Your task to perform on an android device: turn off location history Image 0: 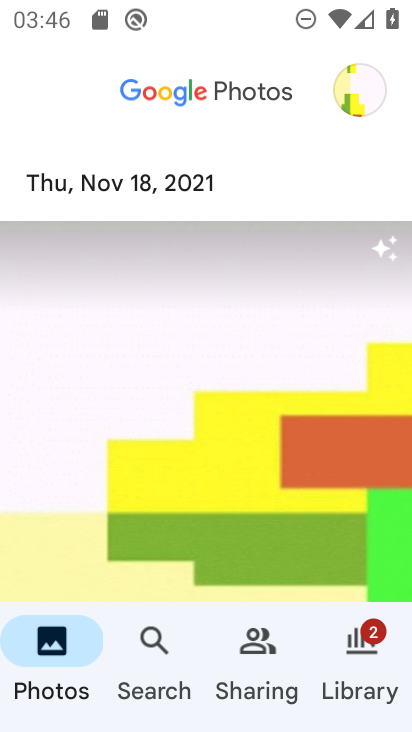
Step 0: press home button
Your task to perform on an android device: turn off location history Image 1: 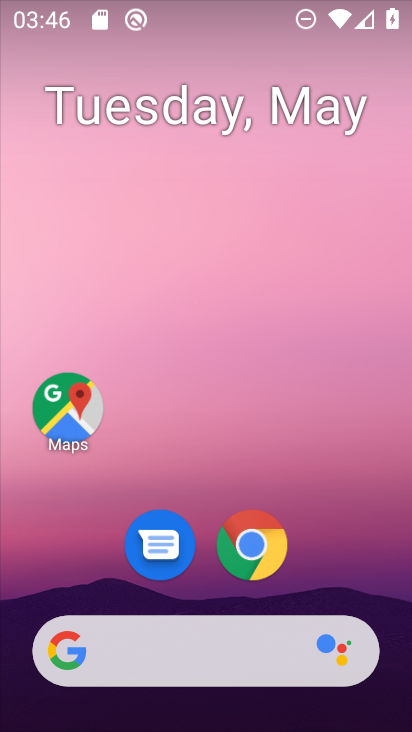
Step 1: click (70, 406)
Your task to perform on an android device: turn off location history Image 2: 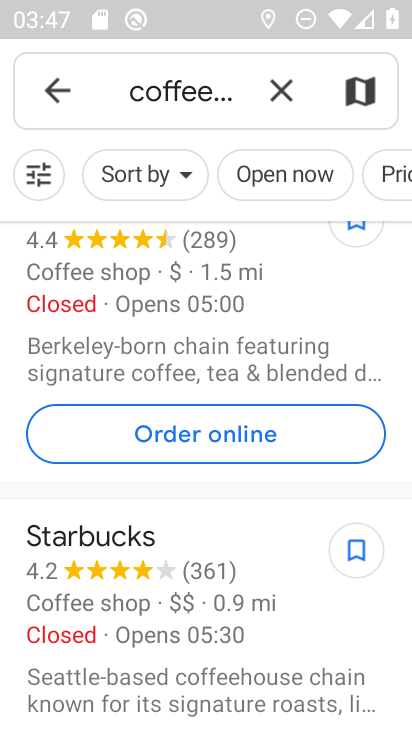
Step 2: click (281, 90)
Your task to perform on an android device: turn off location history Image 3: 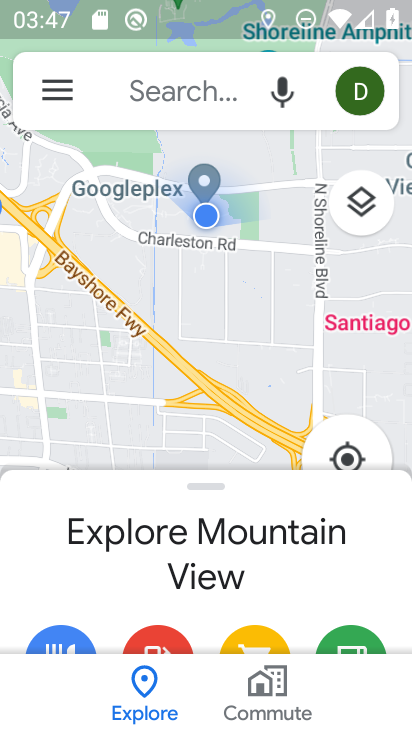
Step 3: click (55, 93)
Your task to perform on an android device: turn off location history Image 4: 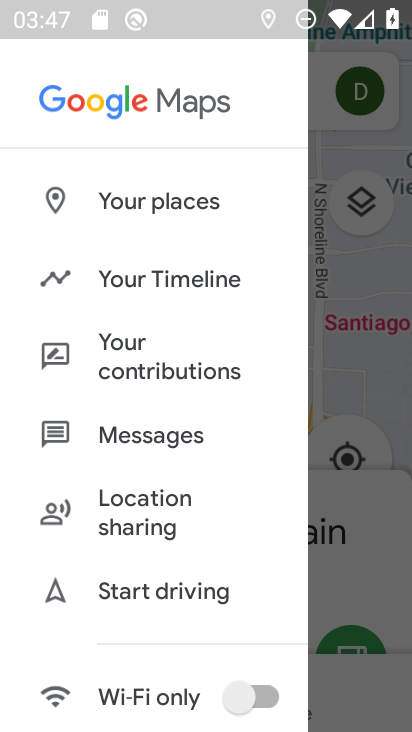
Step 4: drag from (290, 597) to (210, 183)
Your task to perform on an android device: turn off location history Image 5: 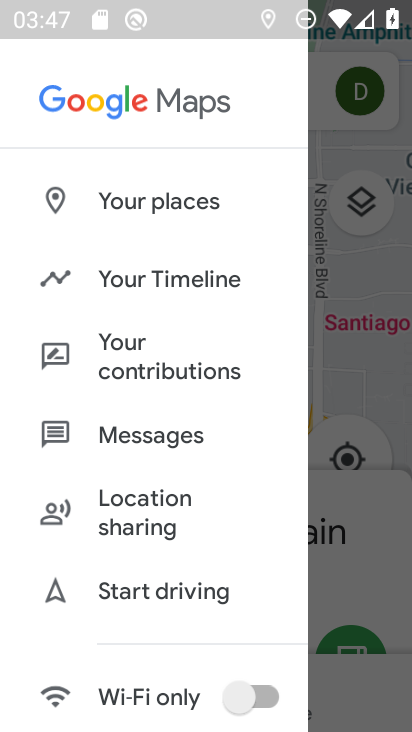
Step 5: drag from (257, 599) to (183, 148)
Your task to perform on an android device: turn off location history Image 6: 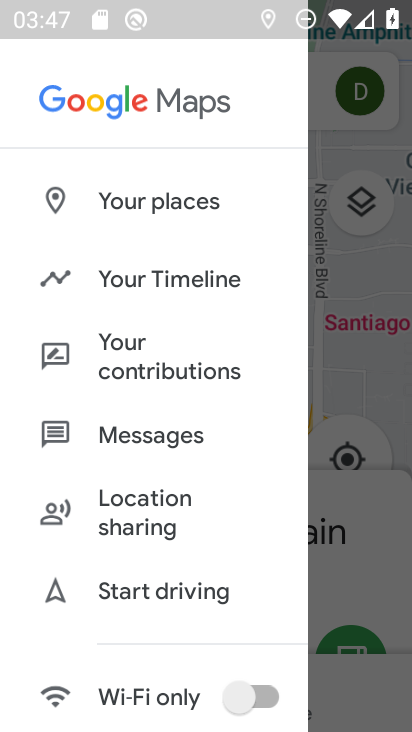
Step 6: drag from (268, 620) to (181, 225)
Your task to perform on an android device: turn off location history Image 7: 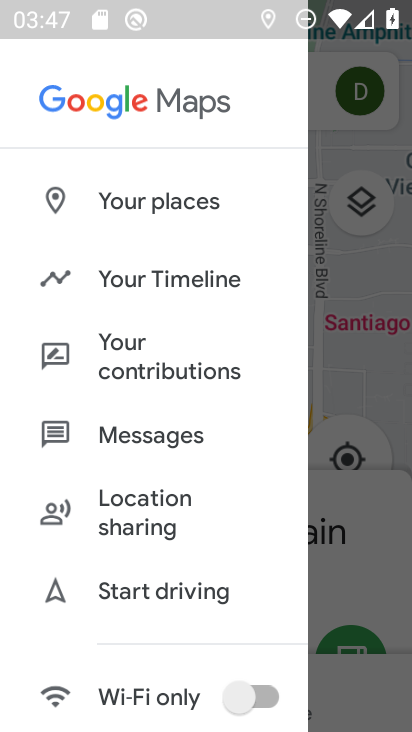
Step 7: drag from (241, 605) to (194, 132)
Your task to perform on an android device: turn off location history Image 8: 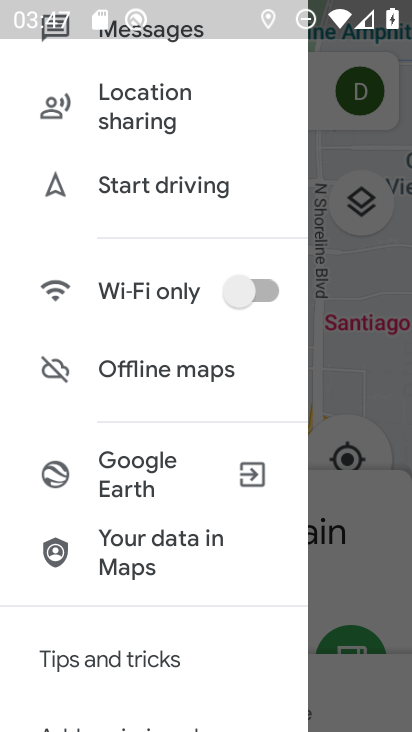
Step 8: drag from (201, 627) to (170, 162)
Your task to perform on an android device: turn off location history Image 9: 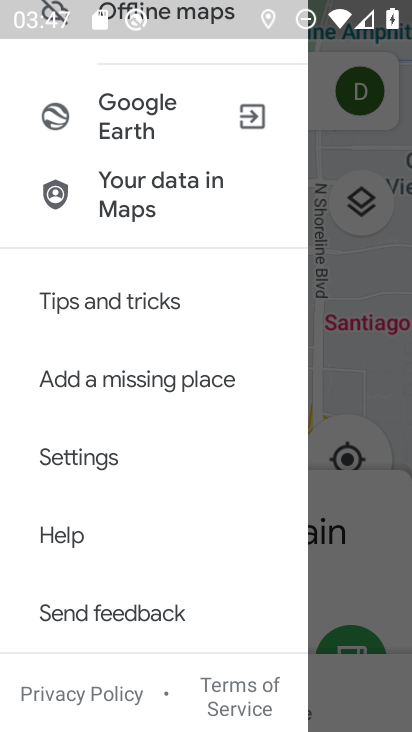
Step 9: click (83, 447)
Your task to perform on an android device: turn off location history Image 10: 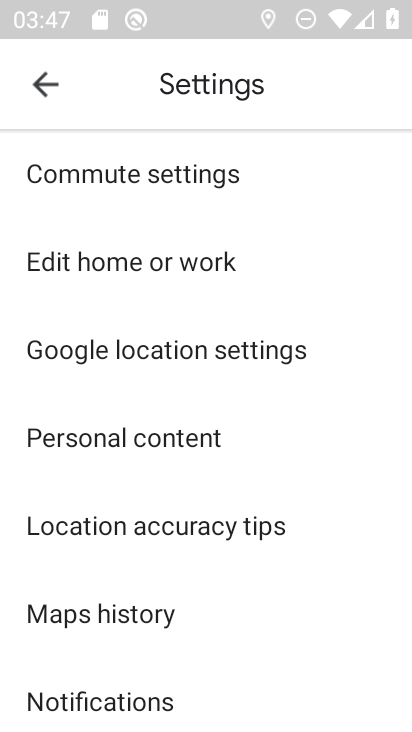
Step 10: click (121, 440)
Your task to perform on an android device: turn off location history Image 11: 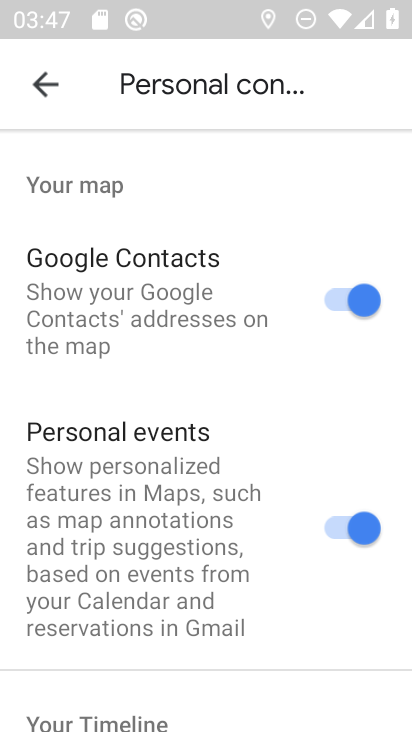
Step 11: task complete